Your task to perform on an android device: turn off translation in the chrome app Image 0: 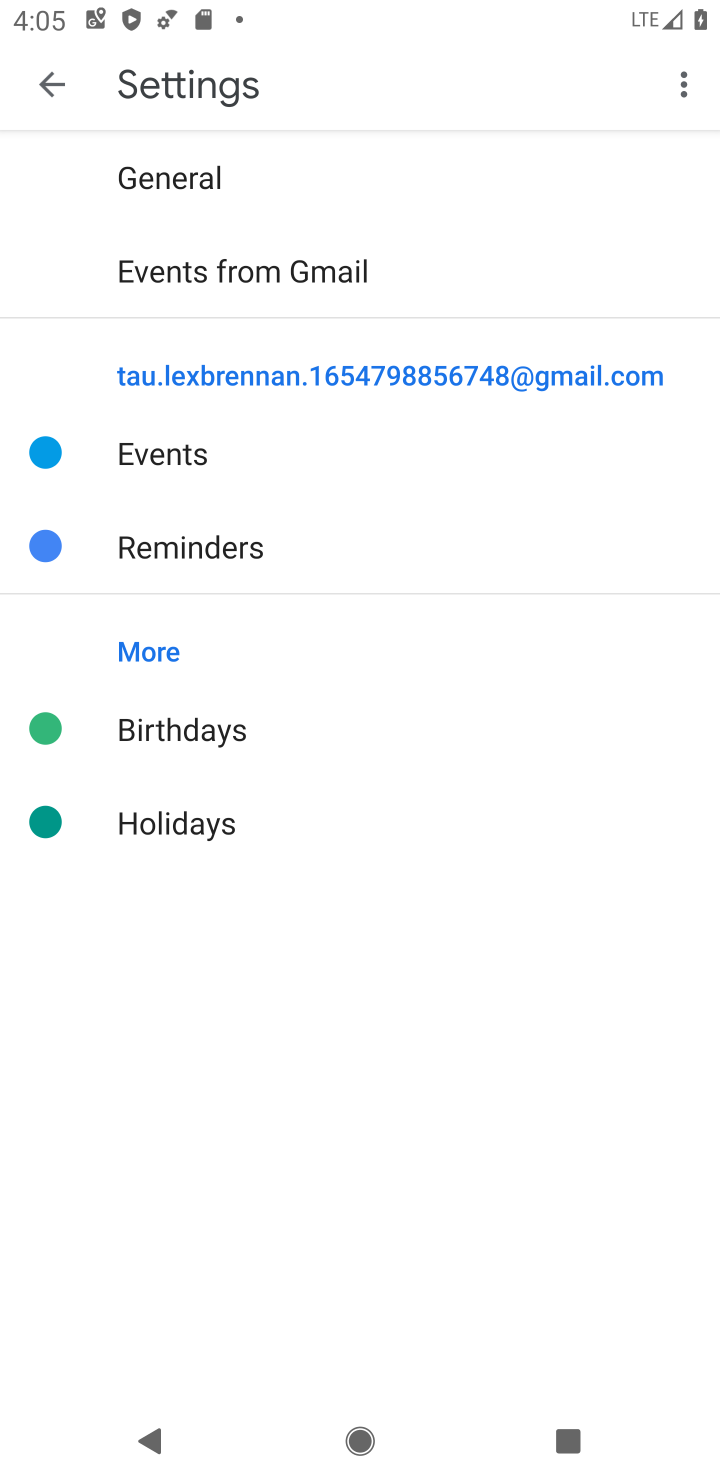
Step 0: press home button
Your task to perform on an android device: turn off translation in the chrome app Image 1: 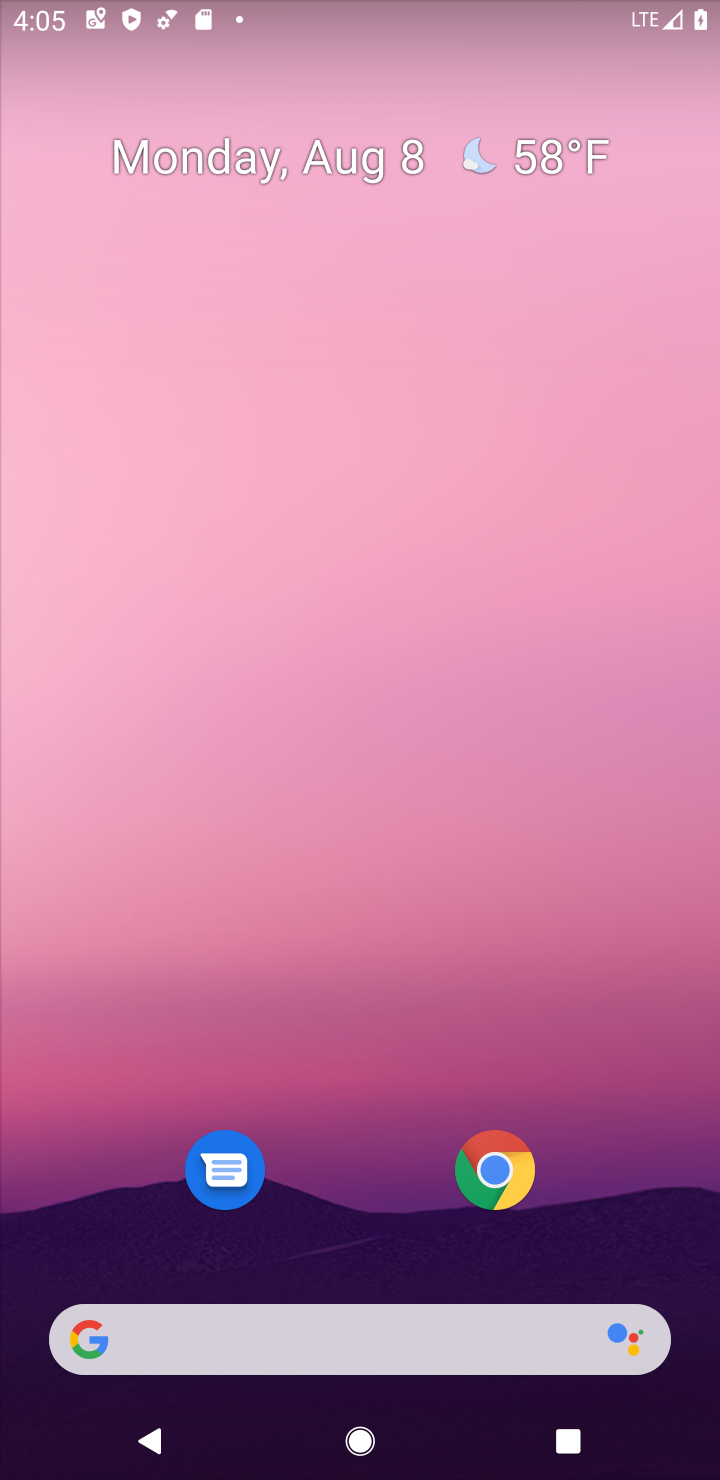
Step 1: click (516, 1204)
Your task to perform on an android device: turn off translation in the chrome app Image 2: 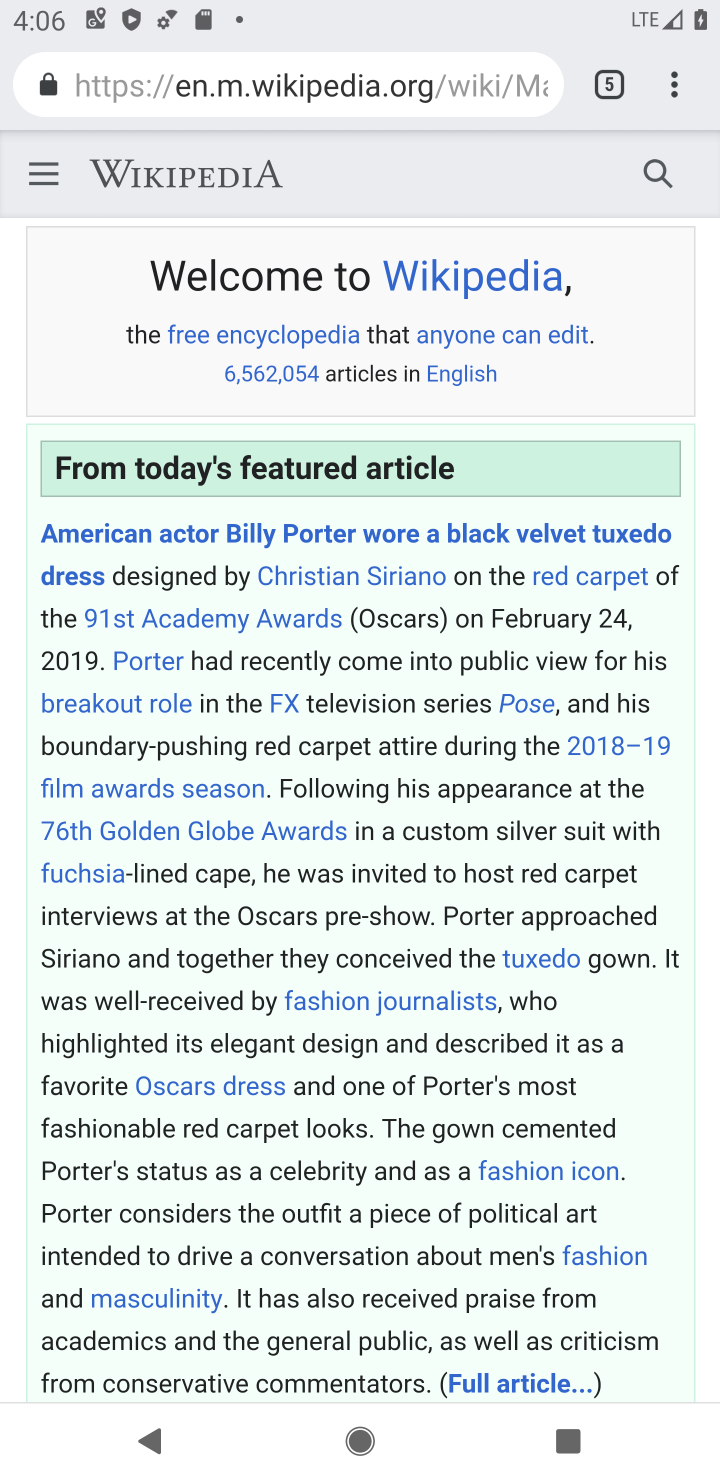
Step 2: click (671, 94)
Your task to perform on an android device: turn off translation in the chrome app Image 3: 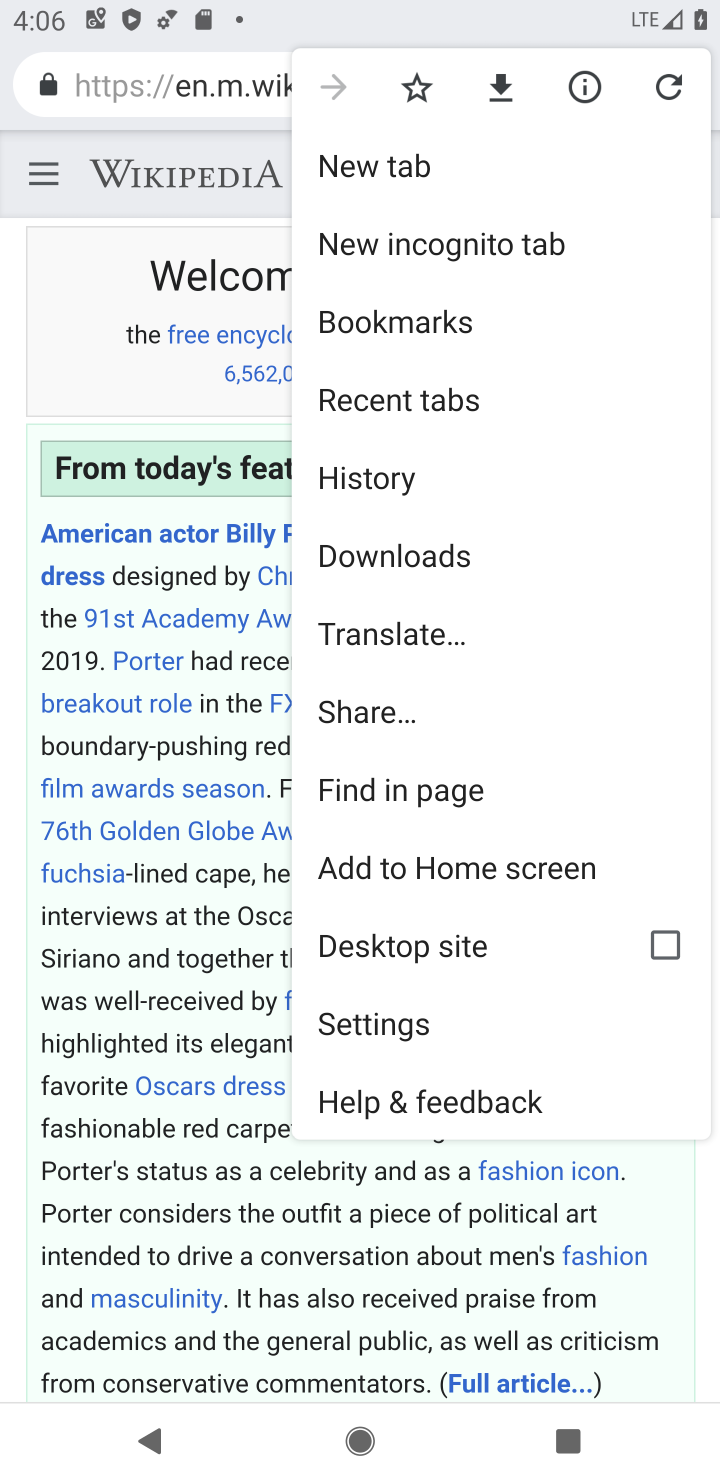
Step 3: click (419, 1037)
Your task to perform on an android device: turn off translation in the chrome app Image 4: 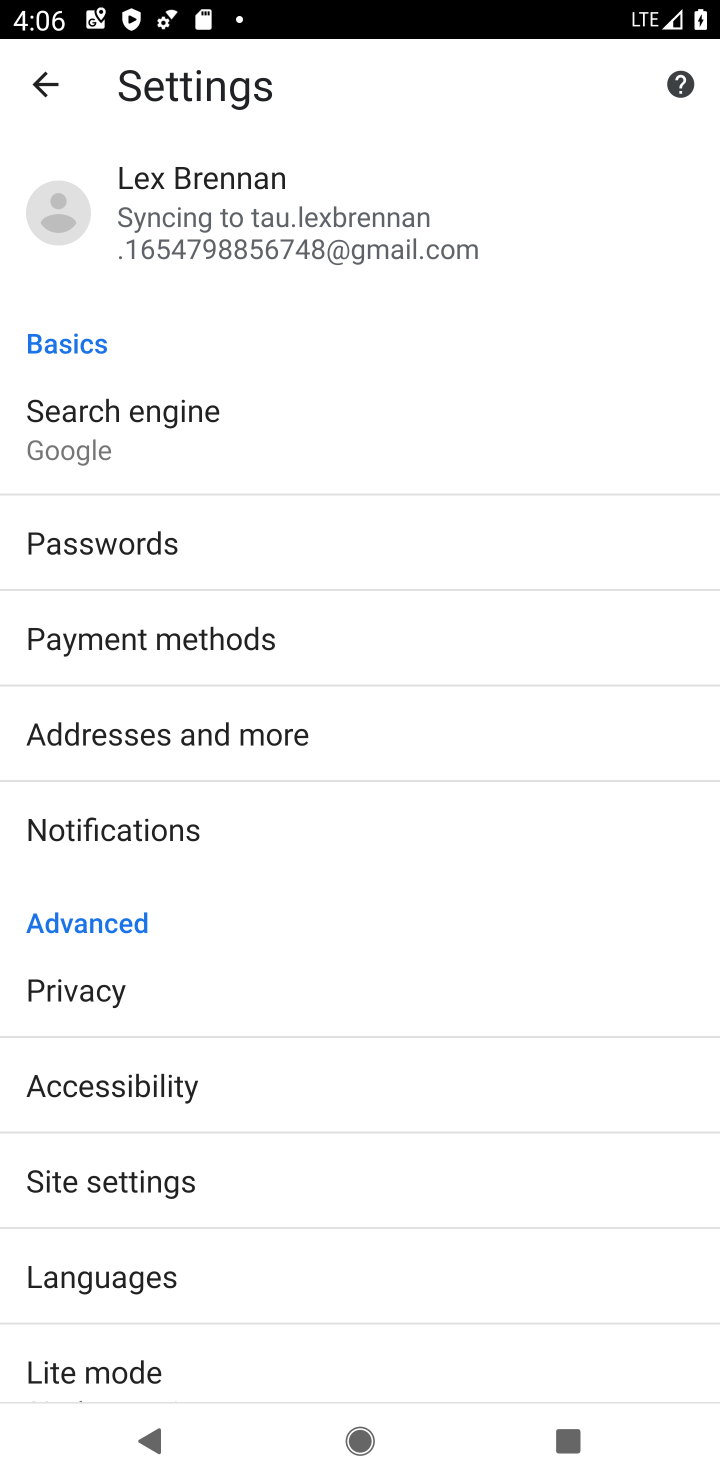
Step 4: click (224, 1287)
Your task to perform on an android device: turn off translation in the chrome app Image 5: 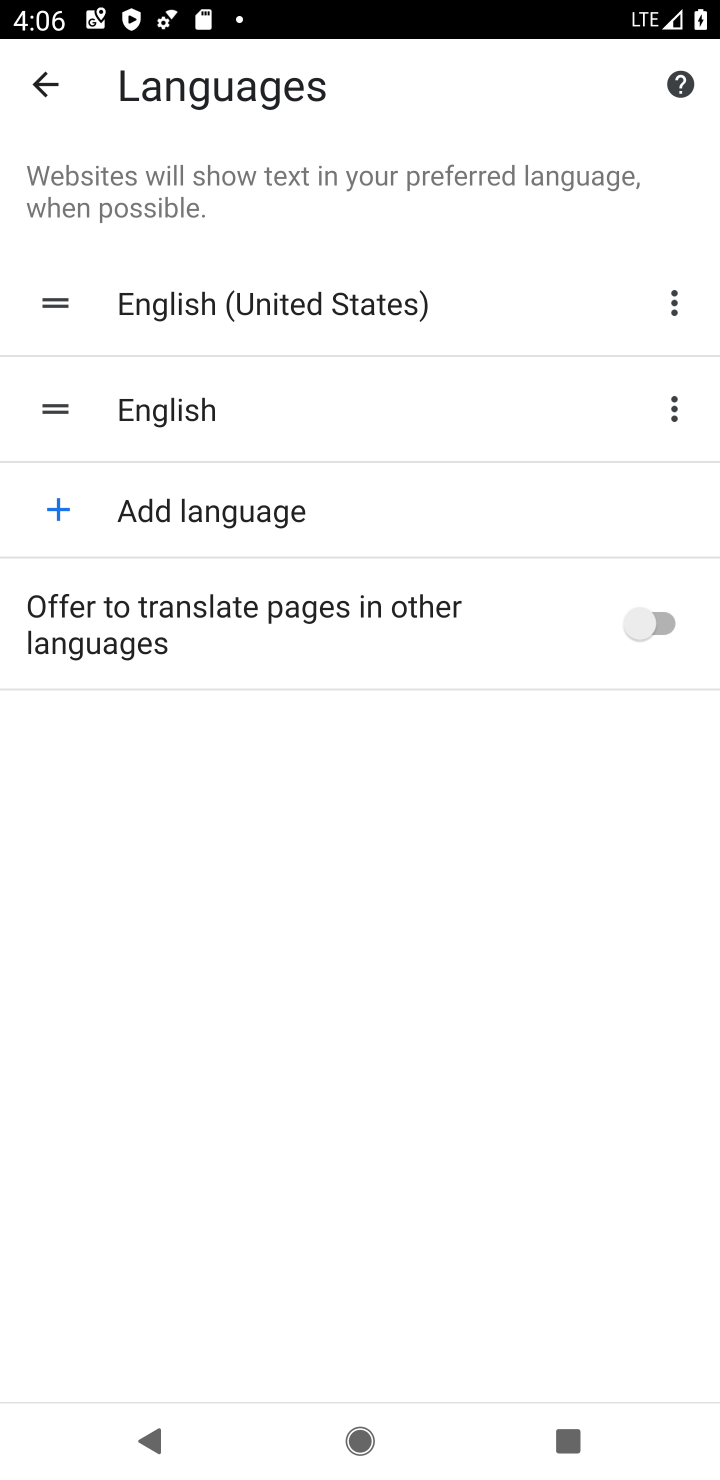
Step 5: click (688, 621)
Your task to perform on an android device: turn off translation in the chrome app Image 6: 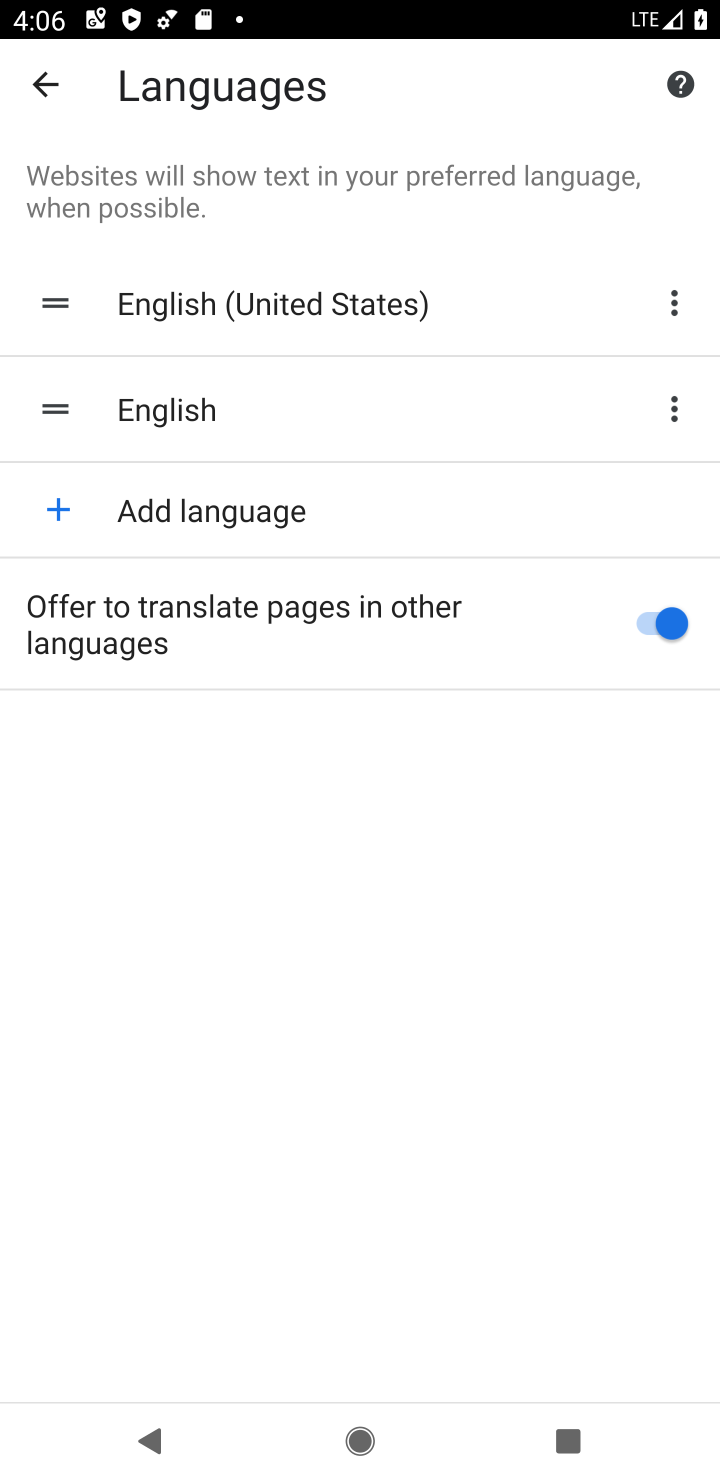
Step 6: click (646, 611)
Your task to perform on an android device: turn off translation in the chrome app Image 7: 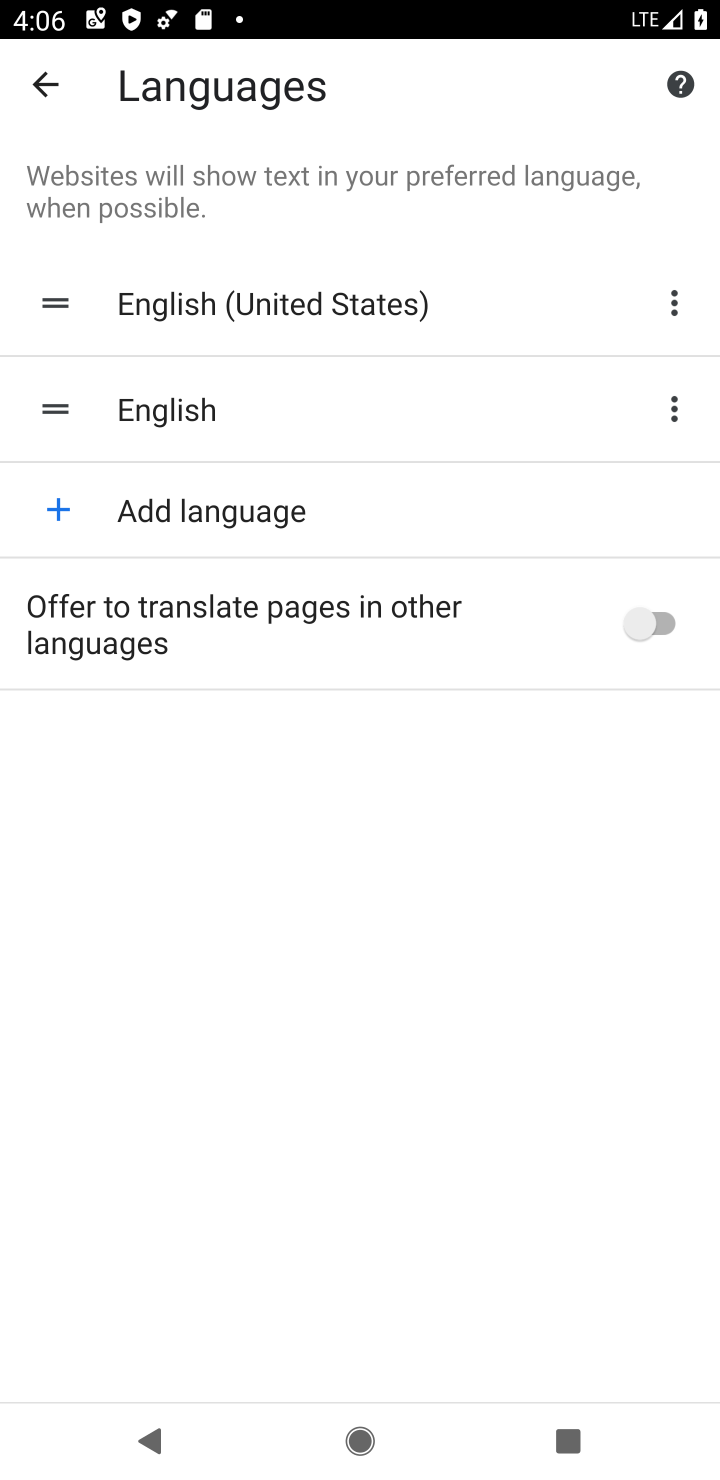
Step 7: task complete